Your task to perform on an android device: Go to eBay Image 0: 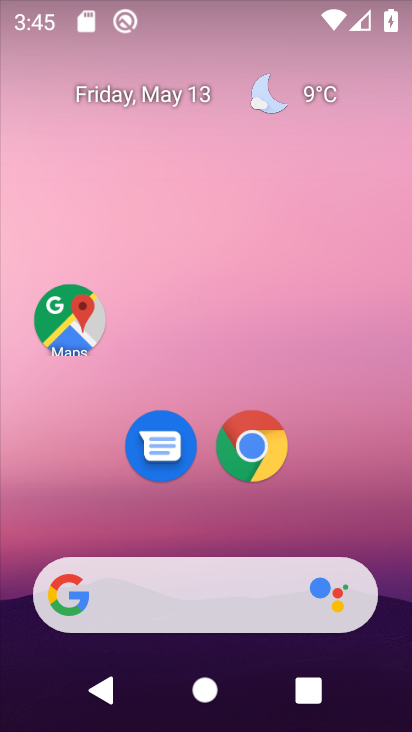
Step 0: click (256, 445)
Your task to perform on an android device: Go to eBay Image 1: 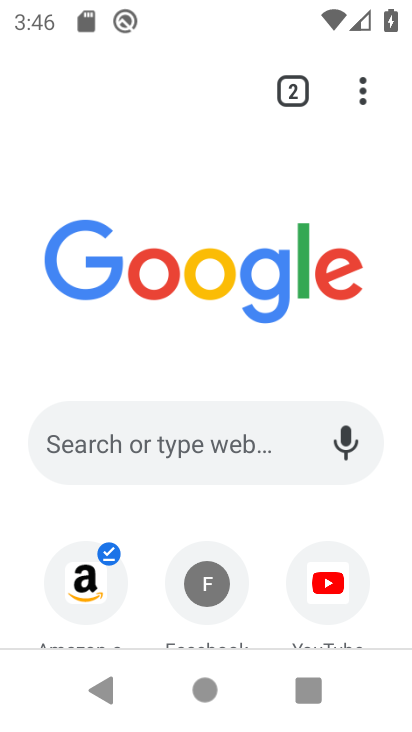
Step 1: click (219, 434)
Your task to perform on an android device: Go to eBay Image 2: 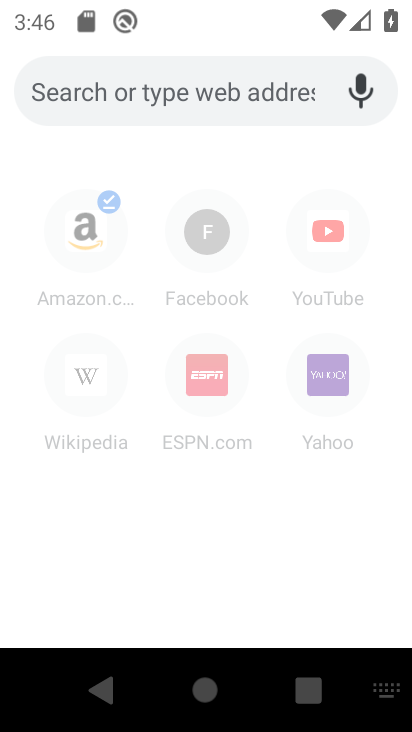
Step 2: type "ebay"
Your task to perform on an android device: Go to eBay Image 3: 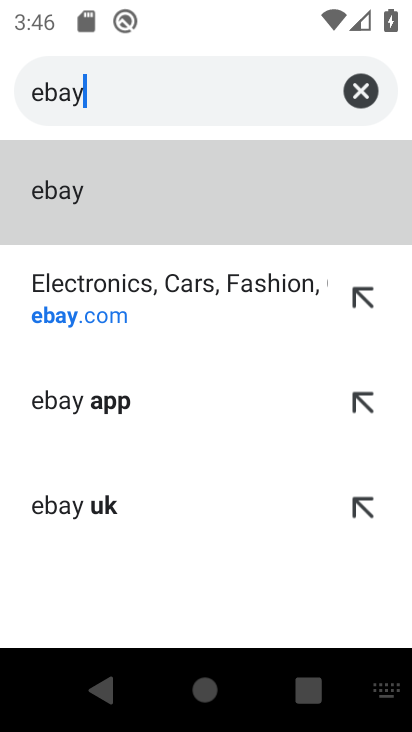
Step 3: click (26, 166)
Your task to perform on an android device: Go to eBay Image 4: 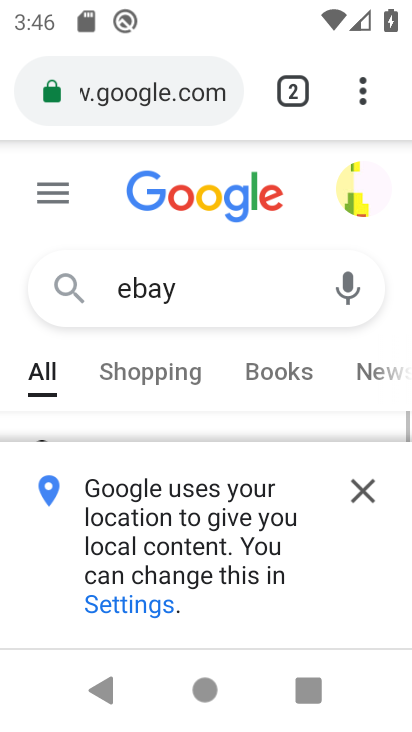
Step 4: drag from (141, 391) to (147, 158)
Your task to perform on an android device: Go to eBay Image 5: 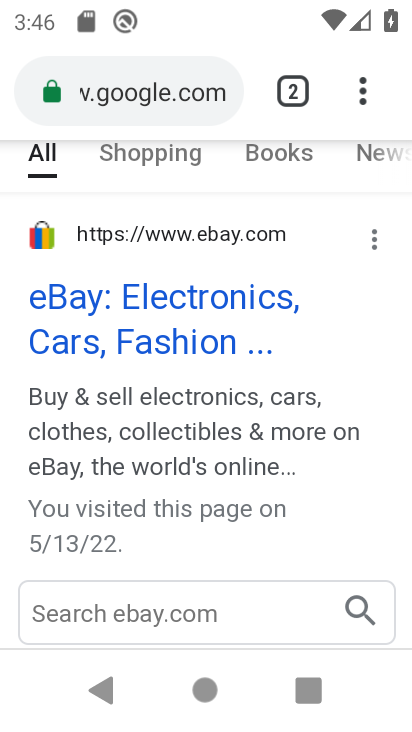
Step 5: click (144, 295)
Your task to perform on an android device: Go to eBay Image 6: 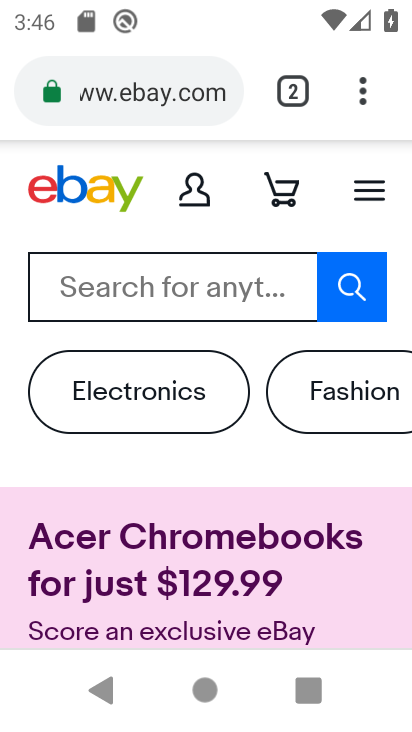
Step 6: task complete